Your task to perform on an android device: Go to calendar. Show me events next week Image 0: 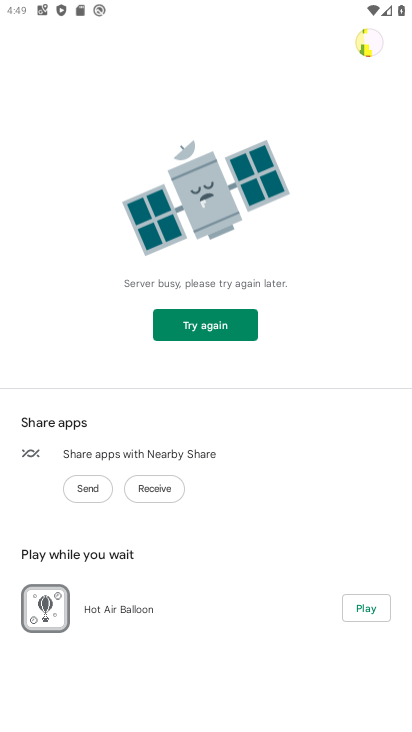
Step 0: press home button
Your task to perform on an android device: Go to calendar. Show me events next week Image 1: 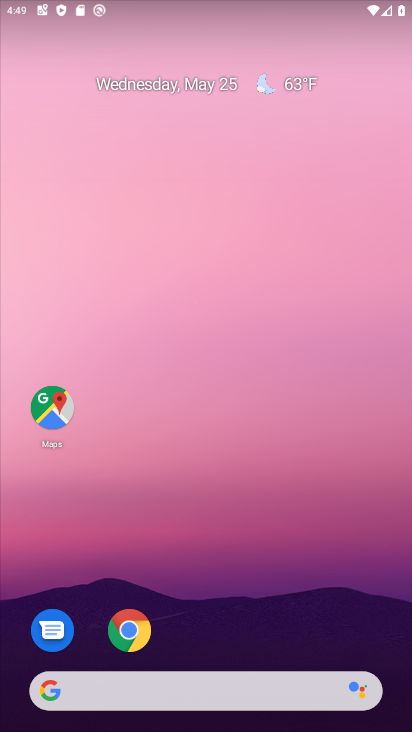
Step 1: drag from (224, 638) to (305, 127)
Your task to perform on an android device: Go to calendar. Show me events next week Image 2: 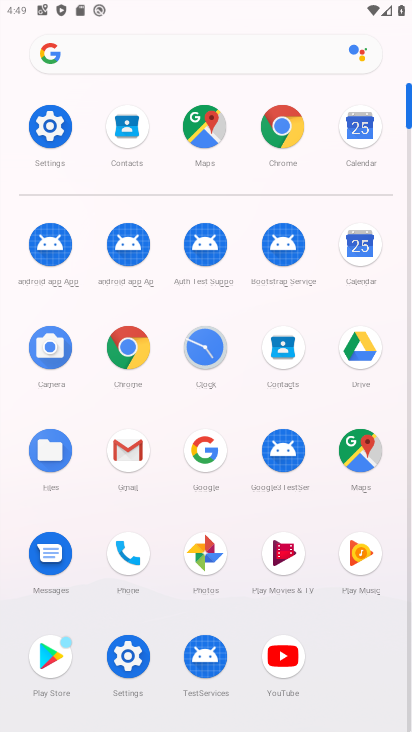
Step 2: click (359, 239)
Your task to perform on an android device: Go to calendar. Show me events next week Image 3: 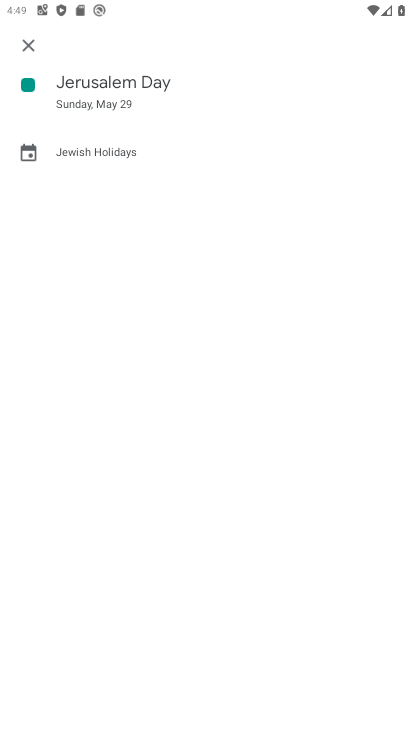
Step 3: click (25, 40)
Your task to perform on an android device: Go to calendar. Show me events next week Image 4: 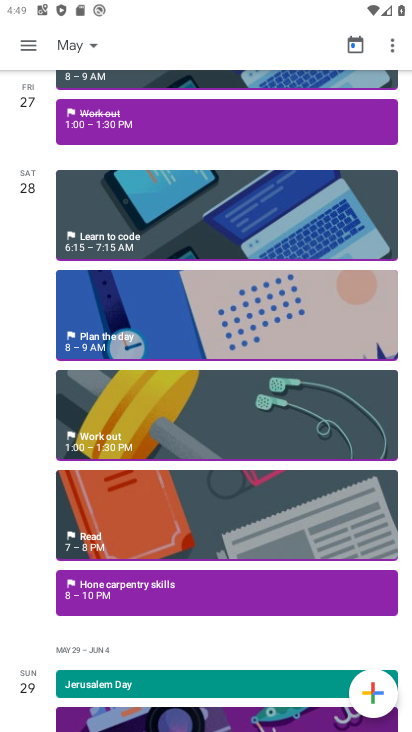
Step 4: drag from (222, 528) to (300, 25)
Your task to perform on an android device: Go to calendar. Show me events next week Image 5: 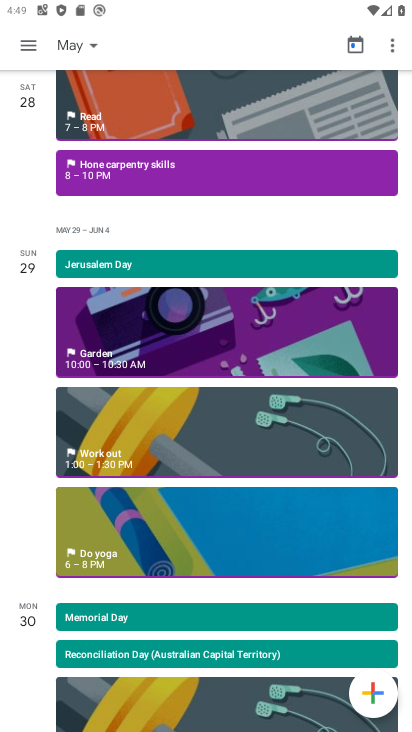
Step 5: drag from (189, 633) to (238, 176)
Your task to perform on an android device: Go to calendar. Show me events next week Image 6: 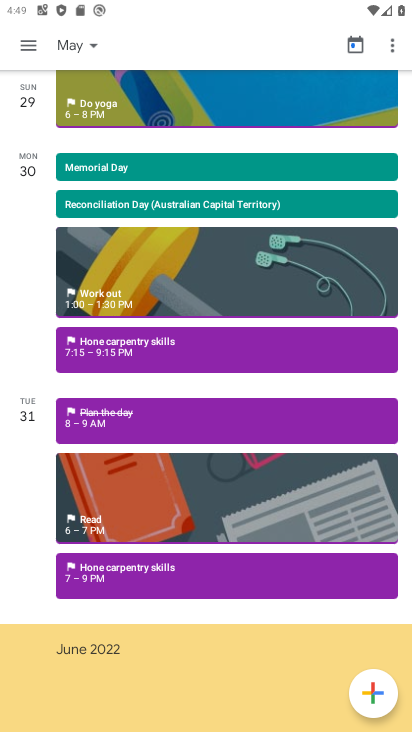
Step 6: click (77, 162)
Your task to perform on an android device: Go to calendar. Show me events next week Image 7: 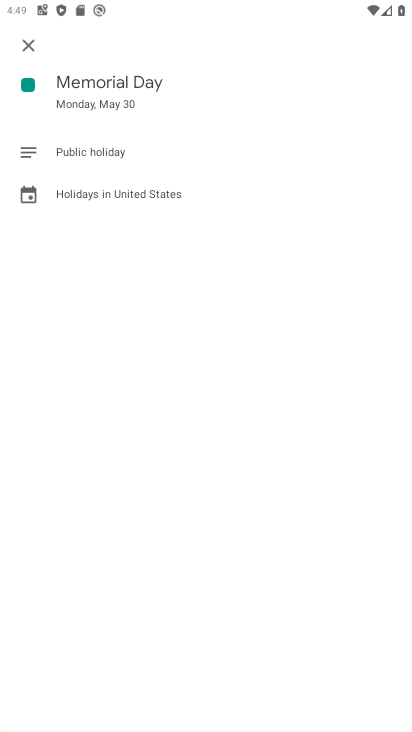
Step 7: task complete